Your task to perform on an android device: Open the calendar app, open the side menu, and click the "Day" option Image 0: 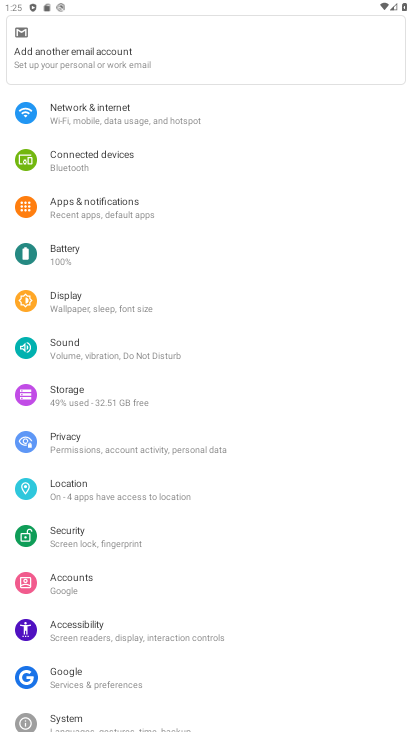
Step 0: press home button
Your task to perform on an android device: Open the calendar app, open the side menu, and click the "Day" option Image 1: 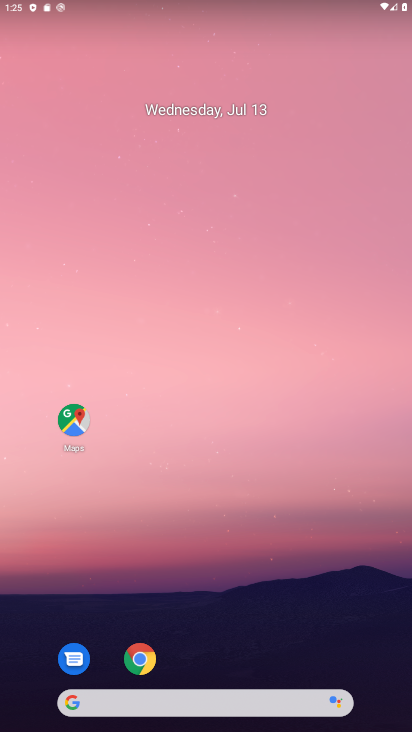
Step 1: drag from (366, 688) to (353, 80)
Your task to perform on an android device: Open the calendar app, open the side menu, and click the "Day" option Image 2: 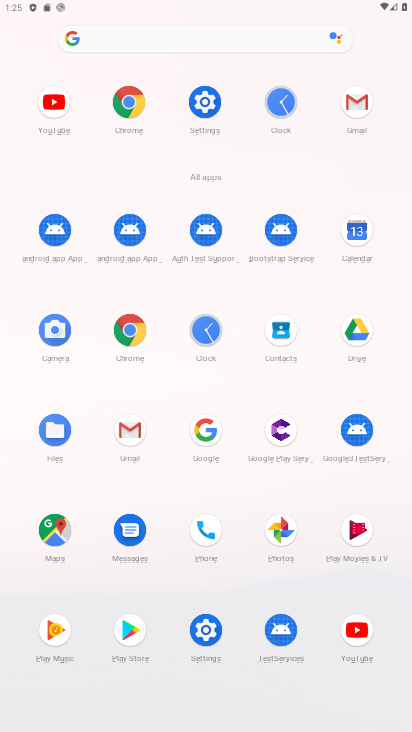
Step 2: click (355, 234)
Your task to perform on an android device: Open the calendar app, open the side menu, and click the "Day" option Image 3: 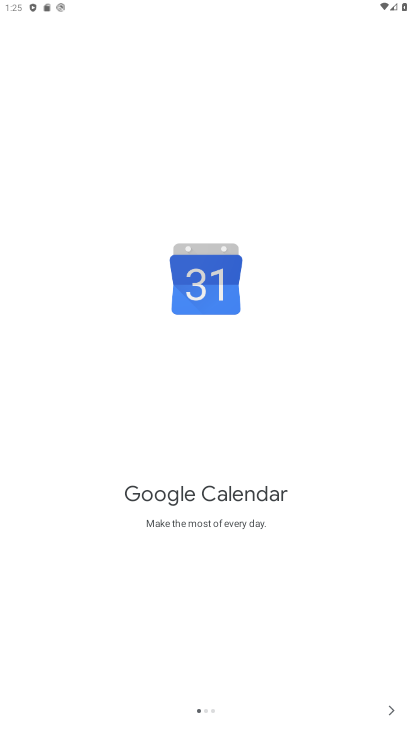
Step 3: click (392, 710)
Your task to perform on an android device: Open the calendar app, open the side menu, and click the "Day" option Image 4: 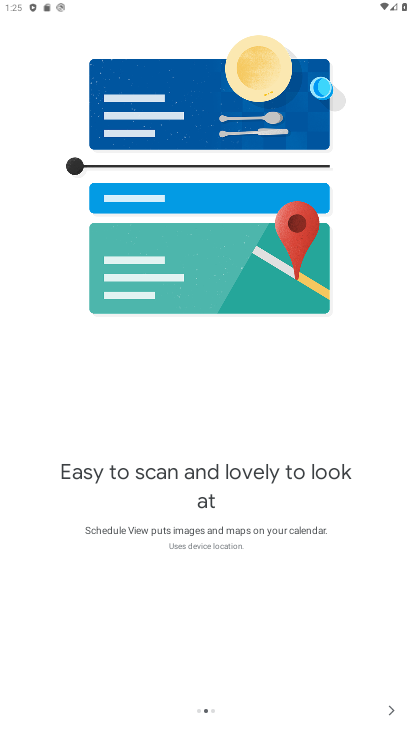
Step 4: click (392, 710)
Your task to perform on an android device: Open the calendar app, open the side menu, and click the "Day" option Image 5: 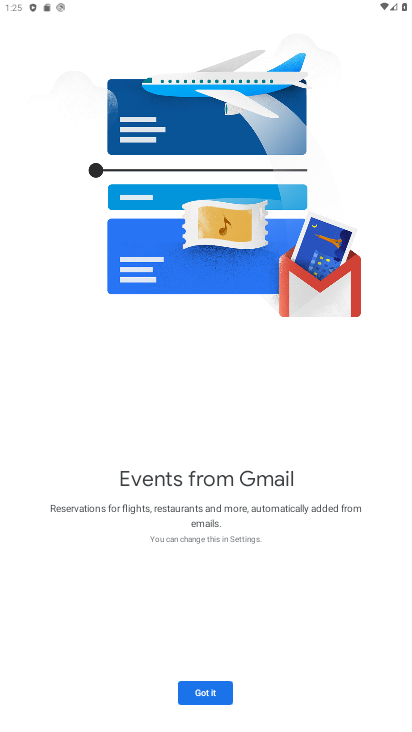
Step 5: click (205, 692)
Your task to perform on an android device: Open the calendar app, open the side menu, and click the "Day" option Image 6: 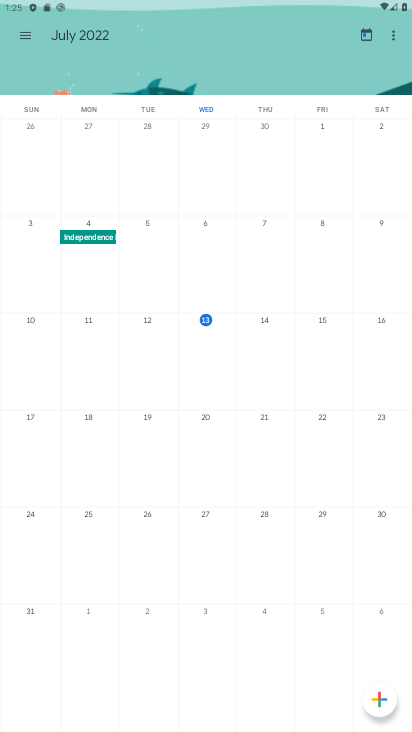
Step 6: click (23, 33)
Your task to perform on an android device: Open the calendar app, open the side menu, and click the "Day" option Image 7: 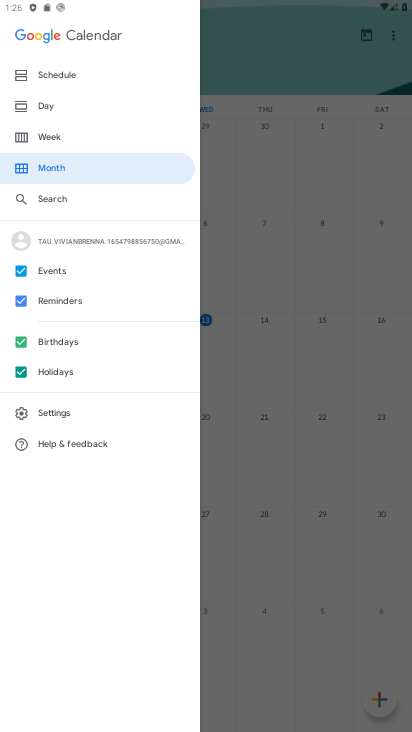
Step 7: click (49, 100)
Your task to perform on an android device: Open the calendar app, open the side menu, and click the "Day" option Image 8: 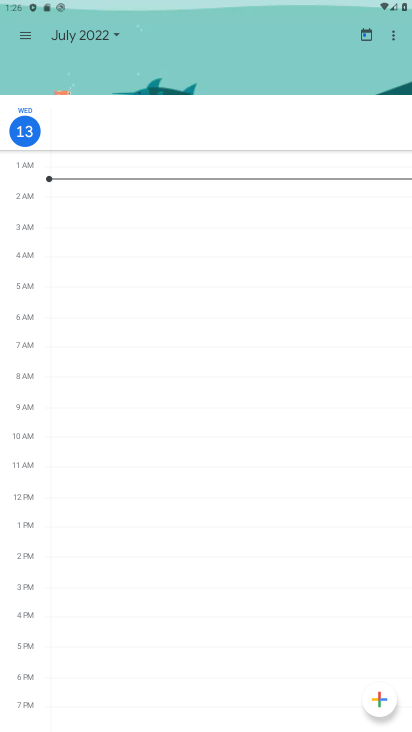
Step 8: task complete